Your task to perform on an android device: toggle data saver in the chrome app Image 0: 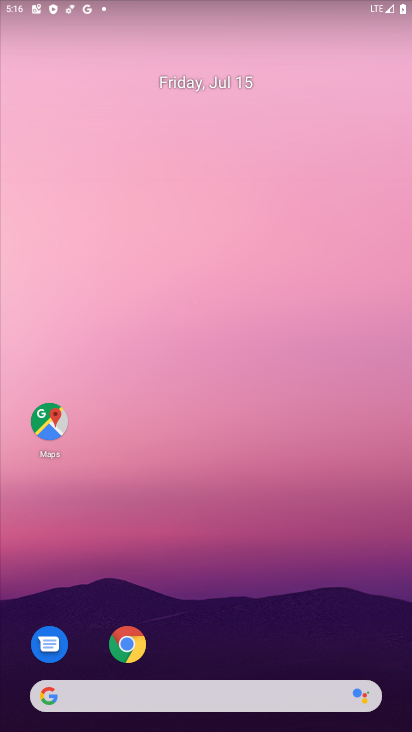
Step 0: click (117, 642)
Your task to perform on an android device: toggle data saver in the chrome app Image 1: 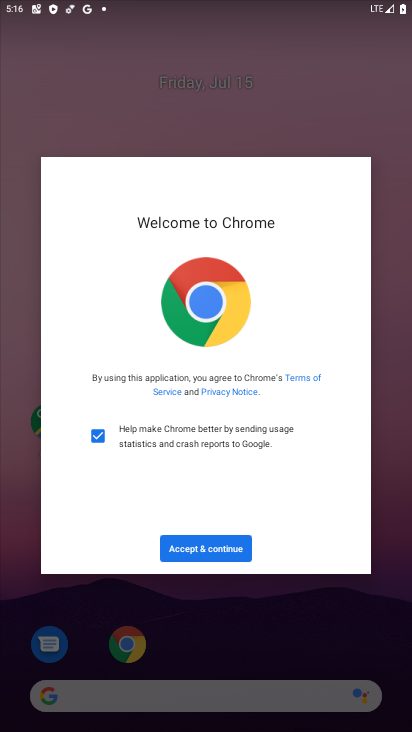
Step 1: click (191, 548)
Your task to perform on an android device: toggle data saver in the chrome app Image 2: 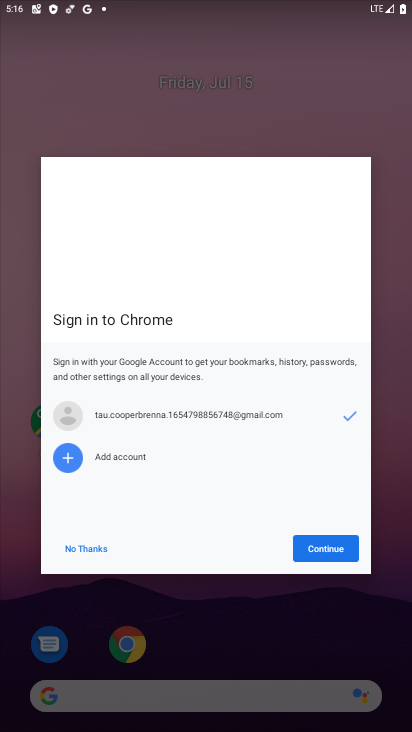
Step 2: click (328, 544)
Your task to perform on an android device: toggle data saver in the chrome app Image 3: 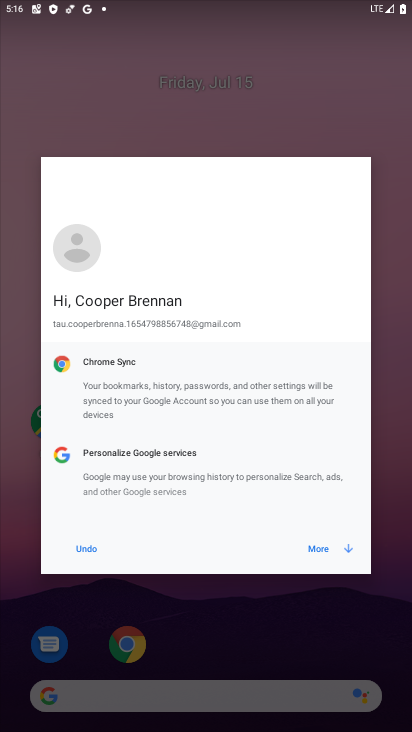
Step 3: click (312, 549)
Your task to perform on an android device: toggle data saver in the chrome app Image 4: 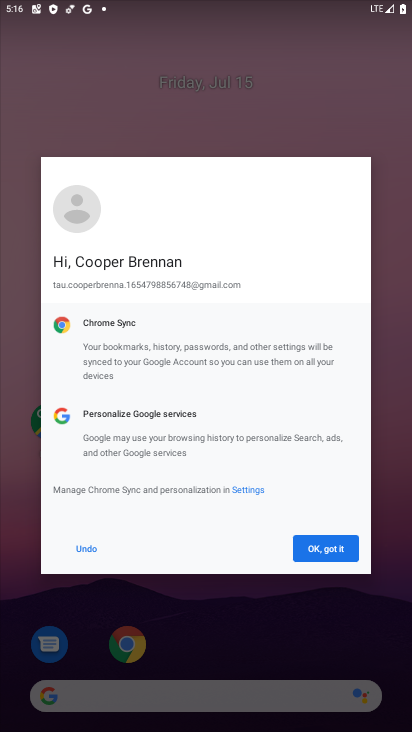
Step 4: click (312, 549)
Your task to perform on an android device: toggle data saver in the chrome app Image 5: 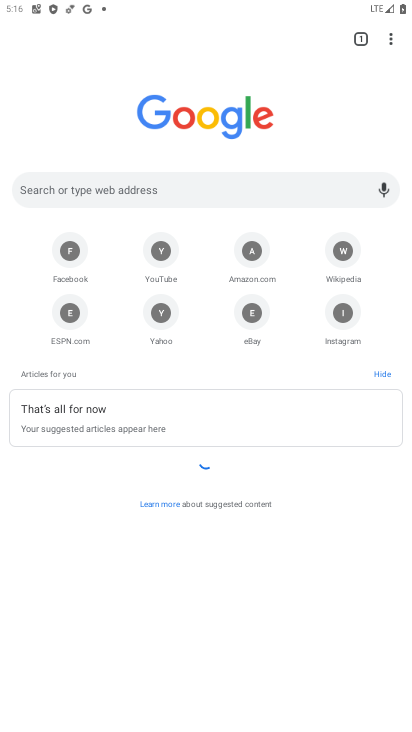
Step 5: click (389, 40)
Your task to perform on an android device: toggle data saver in the chrome app Image 6: 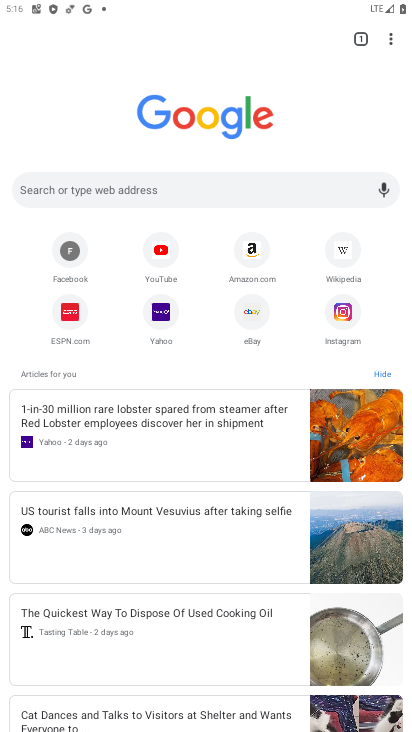
Step 6: click (390, 37)
Your task to perform on an android device: toggle data saver in the chrome app Image 7: 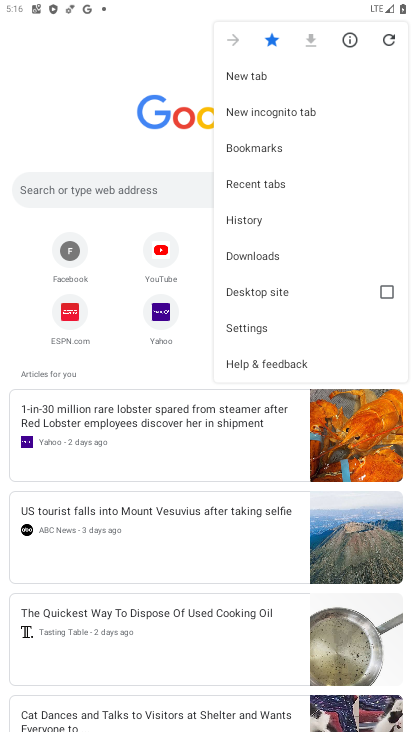
Step 7: click (263, 323)
Your task to perform on an android device: toggle data saver in the chrome app Image 8: 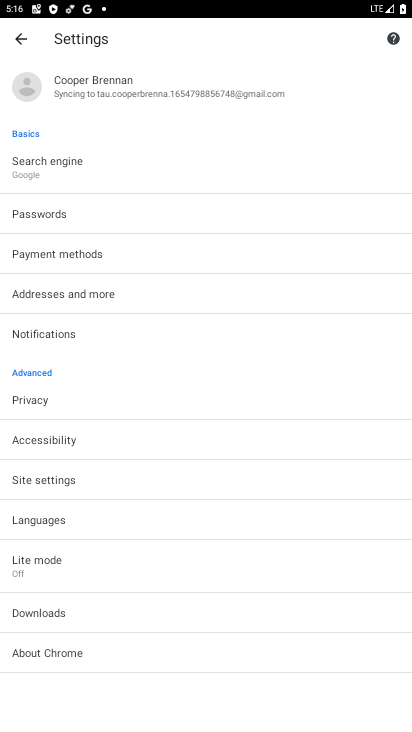
Step 8: click (55, 557)
Your task to perform on an android device: toggle data saver in the chrome app Image 9: 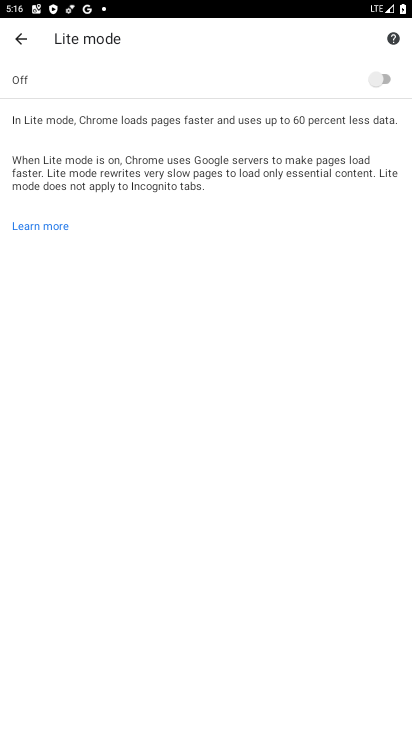
Step 9: click (382, 75)
Your task to perform on an android device: toggle data saver in the chrome app Image 10: 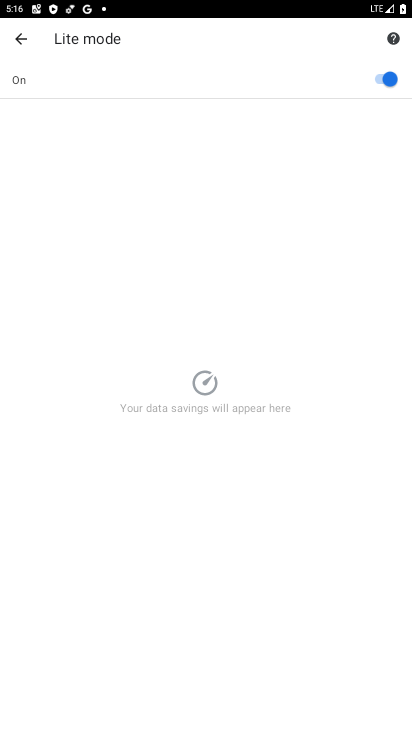
Step 10: task complete